Your task to perform on an android device: move an email to a new category in the gmail app Image 0: 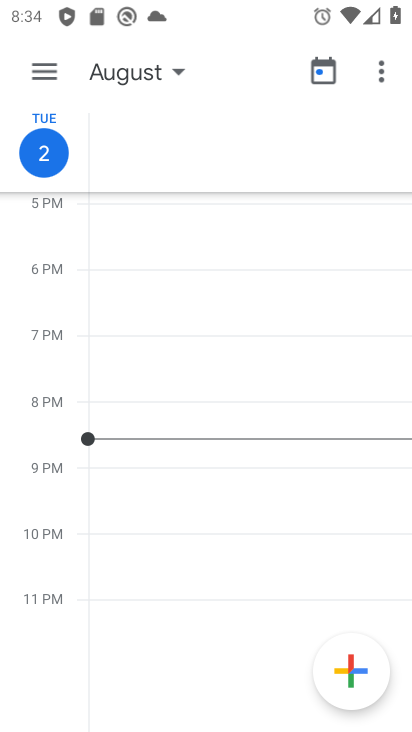
Step 0: press home button
Your task to perform on an android device: move an email to a new category in the gmail app Image 1: 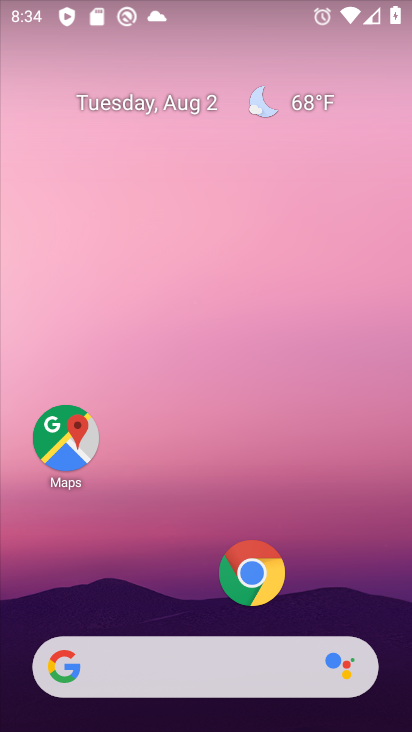
Step 1: drag from (193, 609) to (190, 102)
Your task to perform on an android device: move an email to a new category in the gmail app Image 2: 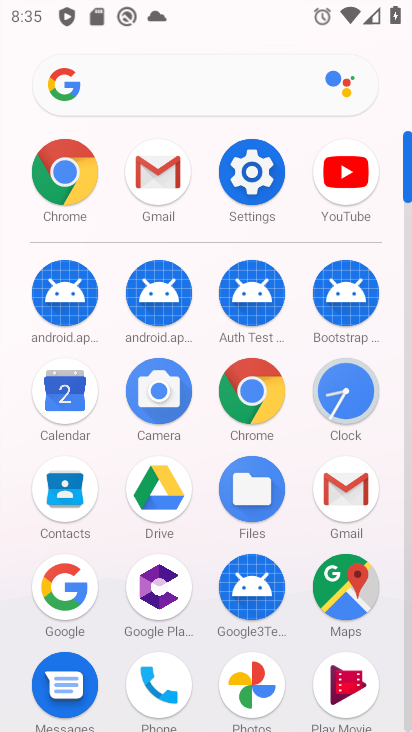
Step 2: click (152, 169)
Your task to perform on an android device: move an email to a new category in the gmail app Image 3: 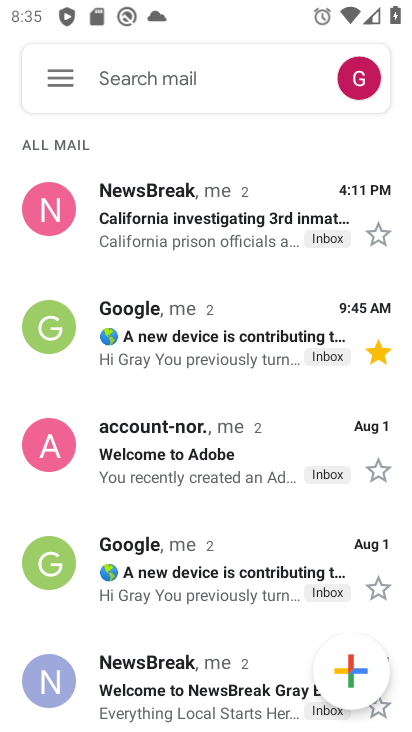
Step 3: click (38, 335)
Your task to perform on an android device: move an email to a new category in the gmail app Image 4: 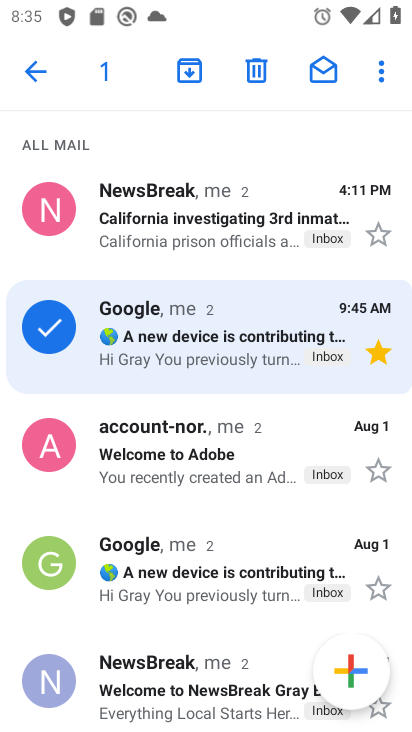
Step 4: click (379, 69)
Your task to perform on an android device: move an email to a new category in the gmail app Image 5: 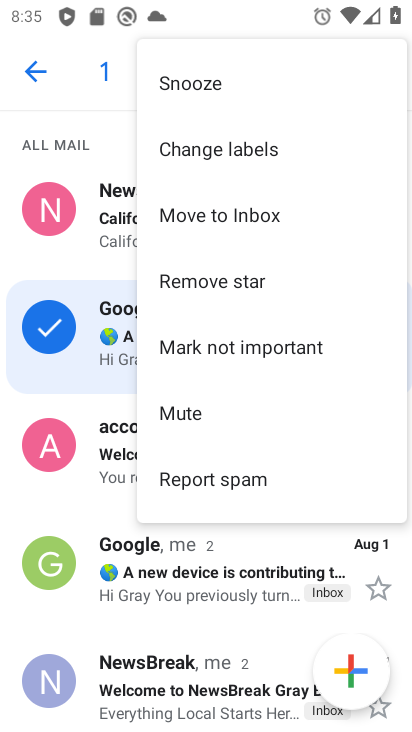
Step 5: click (267, 218)
Your task to perform on an android device: move an email to a new category in the gmail app Image 6: 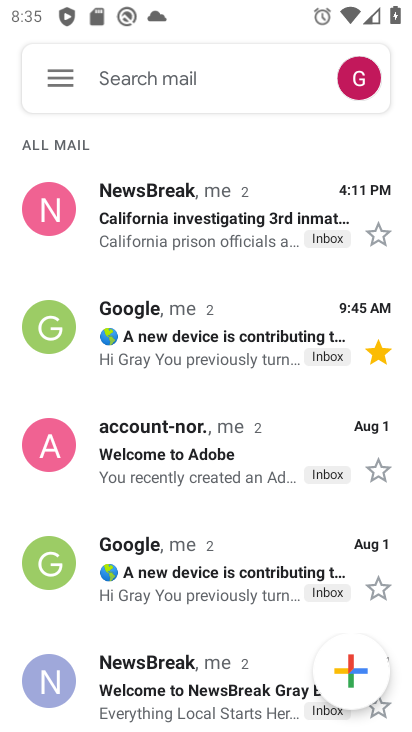
Step 6: task complete